Your task to perform on an android device: toggle translation in the chrome app Image 0: 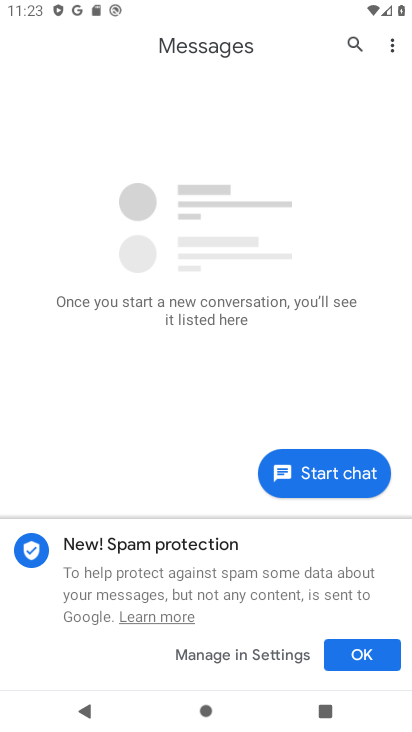
Step 0: press home button
Your task to perform on an android device: toggle translation in the chrome app Image 1: 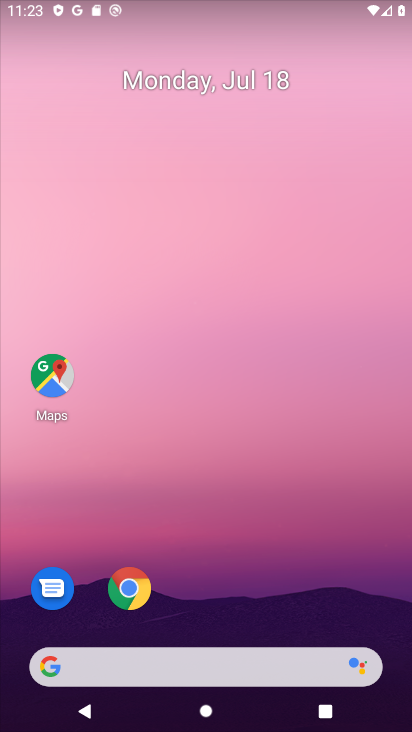
Step 1: click (132, 594)
Your task to perform on an android device: toggle translation in the chrome app Image 2: 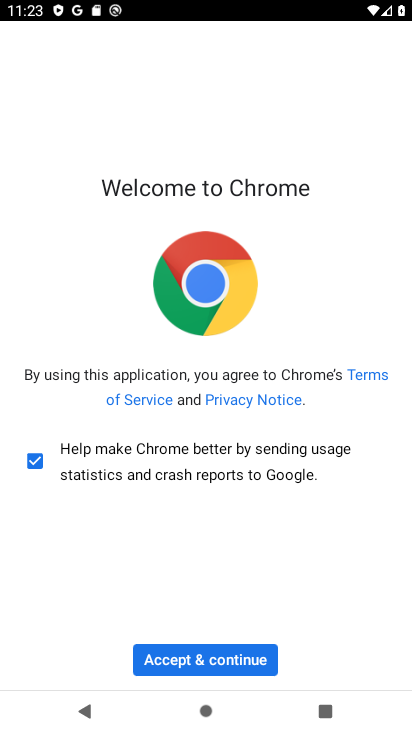
Step 2: click (225, 665)
Your task to perform on an android device: toggle translation in the chrome app Image 3: 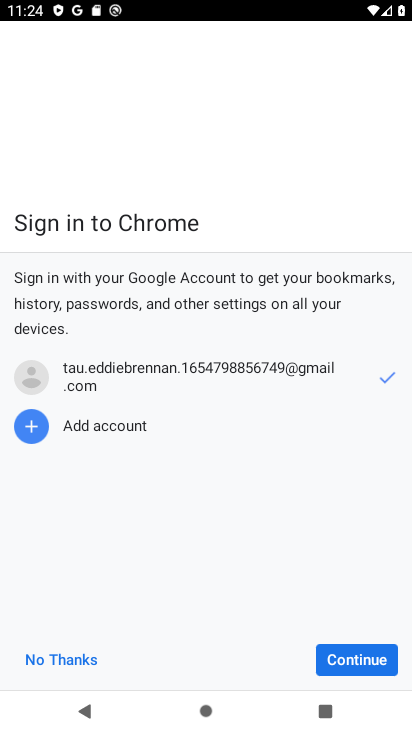
Step 3: click (341, 665)
Your task to perform on an android device: toggle translation in the chrome app Image 4: 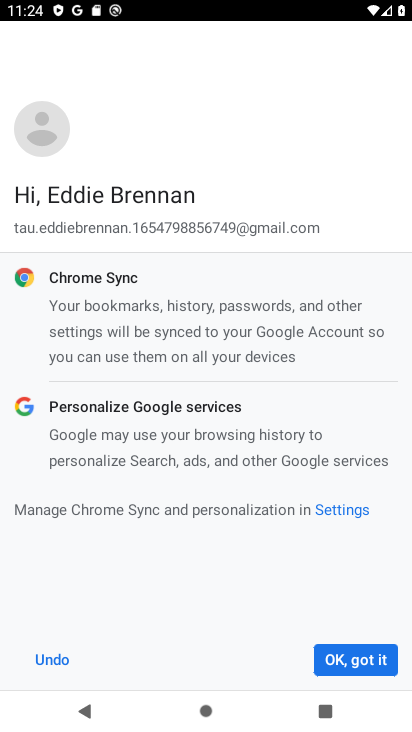
Step 4: click (341, 665)
Your task to perform on an android device: toggle translation in the chrome app Image 5: 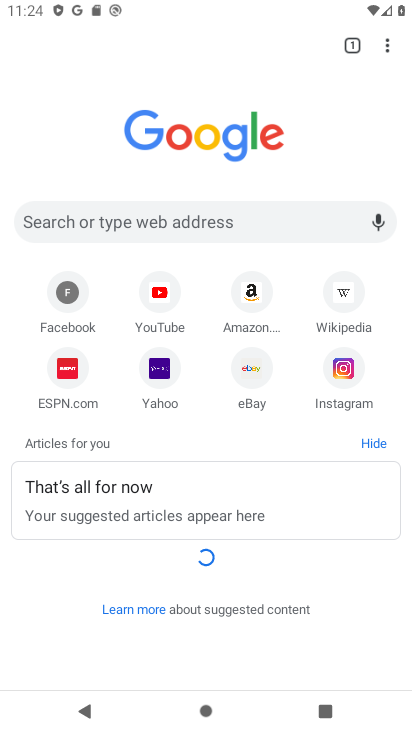
Step 5: click (393, 43)
Your task to perform on an android device: toggle translation in the chrome app Image 6: 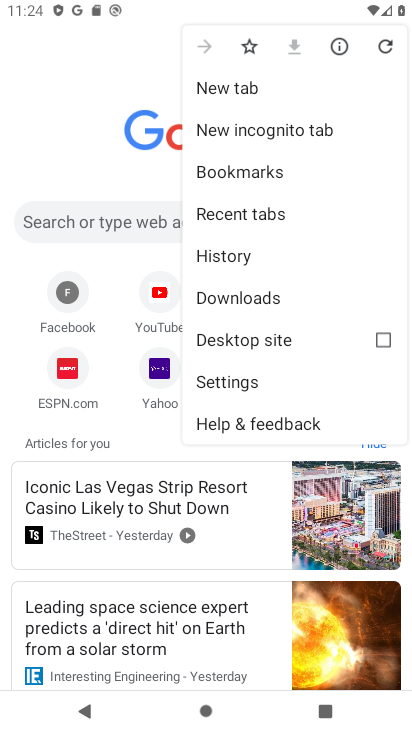
Step 6: click (216, 375)
Your task to perform on an android device: toggle translation in the chrome app Image 7: 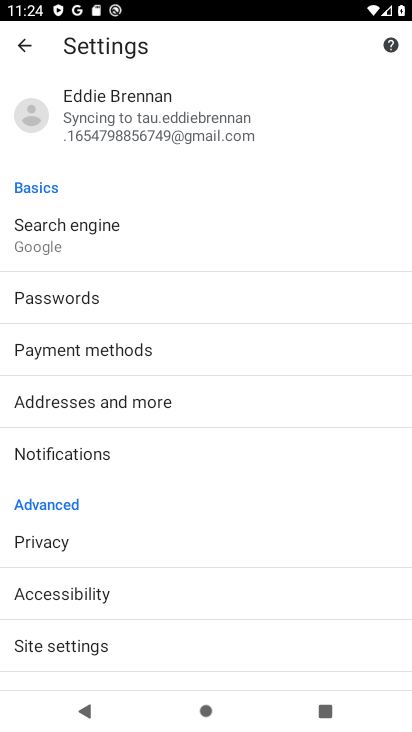
Step 7: drag from (209, 668) to (181, 359)
Your task to perform on an android device: toggle translation in the chrome app Image 8: 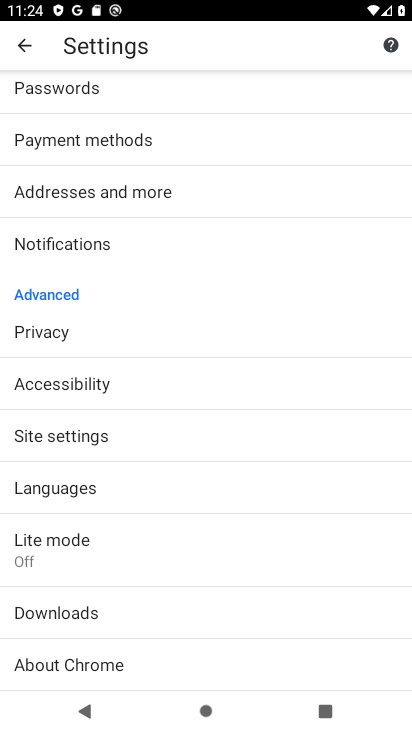
Step 8: click (139, 492)
Your task to perform on an android device: toggle translation in the chrome app Image 9: 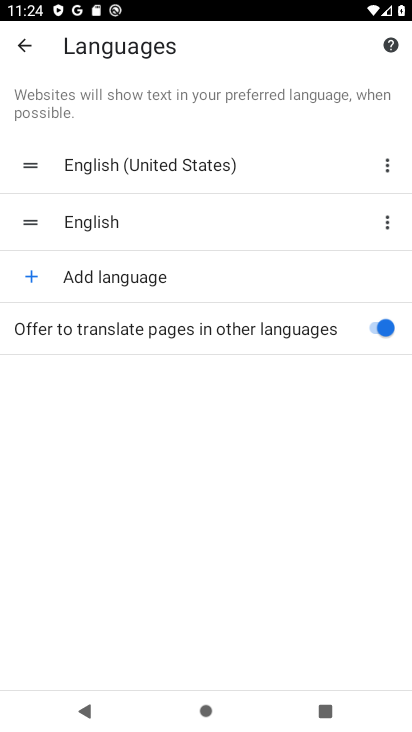
Step 9: click (385, 325)
Your task to perform on an android device: toggle translation in the chrome app Image 10: 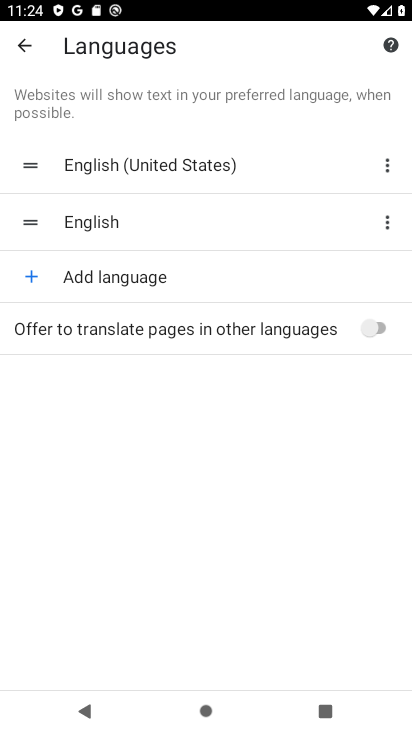
Step 10: task complete